Your task to perform on an android device: delete location history Image 0: 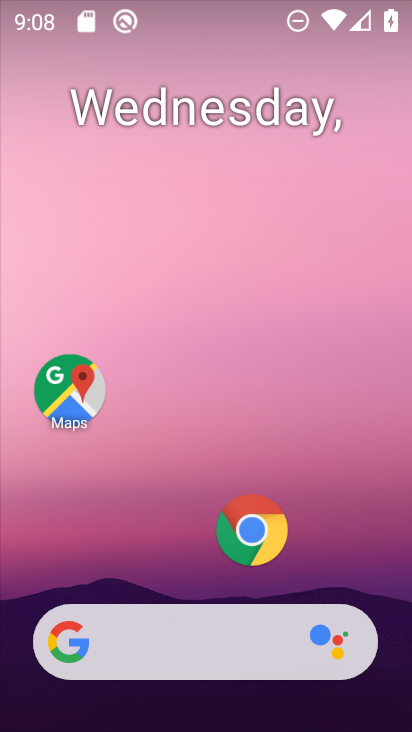
Step 0: click (65, 389)
Your task to perform on an android device: delete location history Image 1: 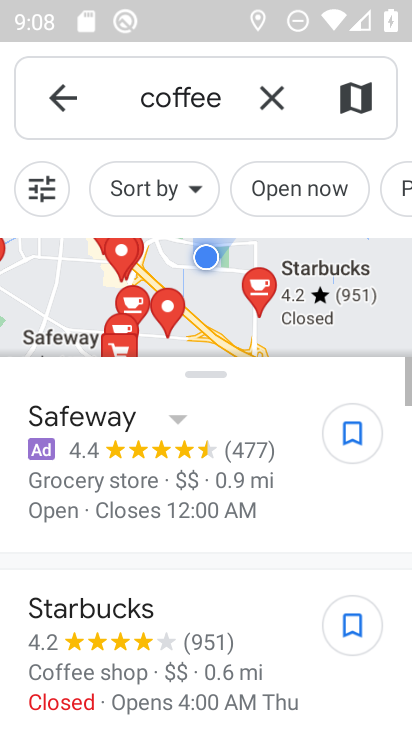
Step 1: click (61, 95)
Your task to perform on an android device: delete location history Image 2: 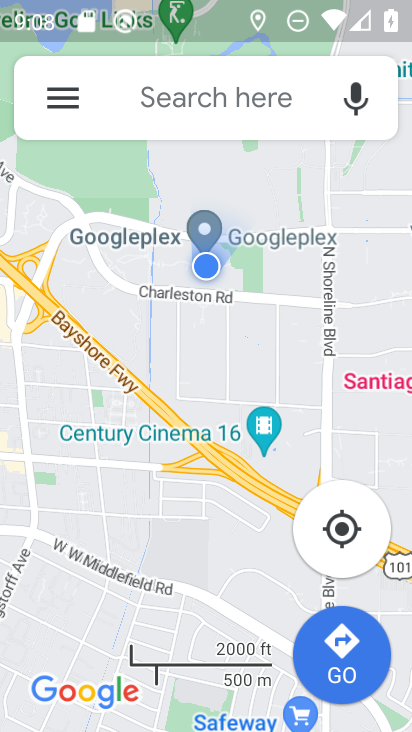
Step 2: click (61, 95)
Your task to perform on an android device: delete location history Image 3: 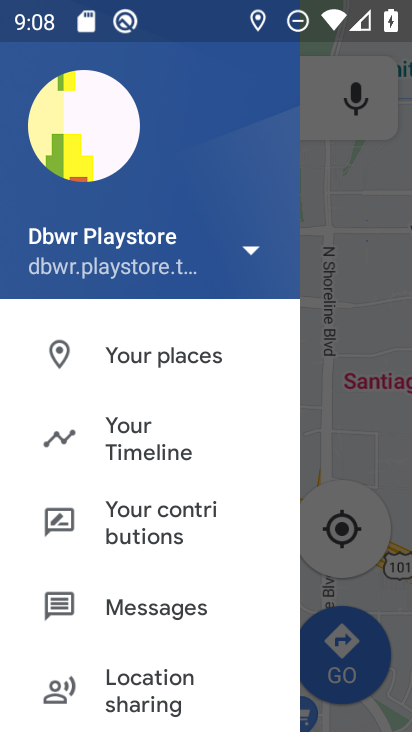
Step 3: click (153, 456)
Your task to perform on an android device: delete location history Image 4: 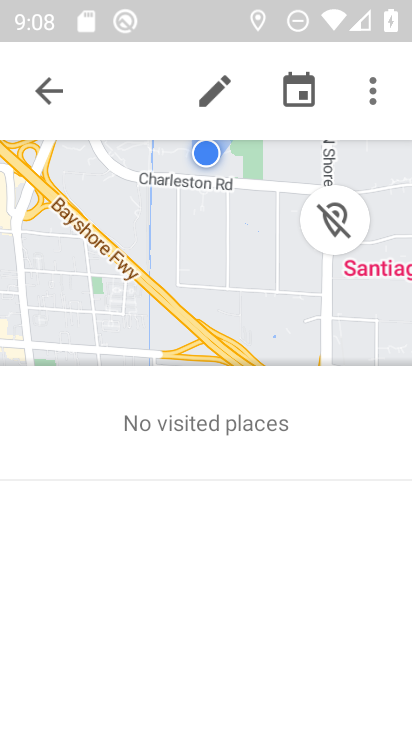
Step 4: click (367, 83)
Your task to perform on an android device: delete location history Image 5: 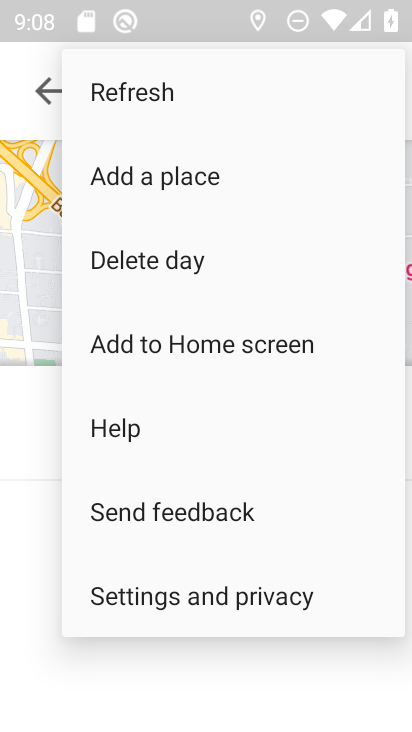
Step 5: click (189, 610)
Your task to perform on an android device: delete location history Image 6: 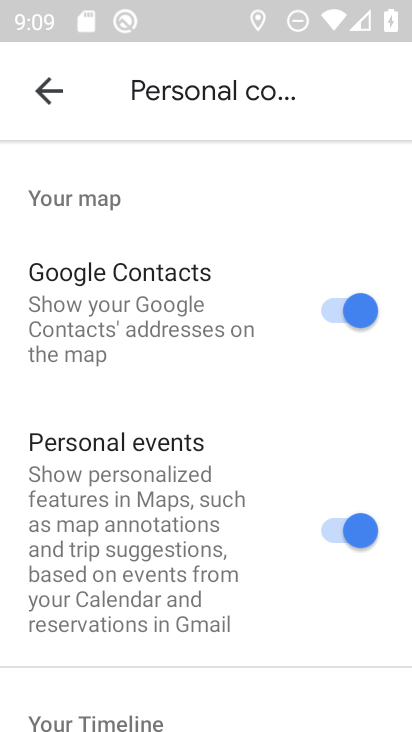
Step 6: drag from (202, 609) to (245, 111)
Your task to perform on an android device: delete location history Image 7: 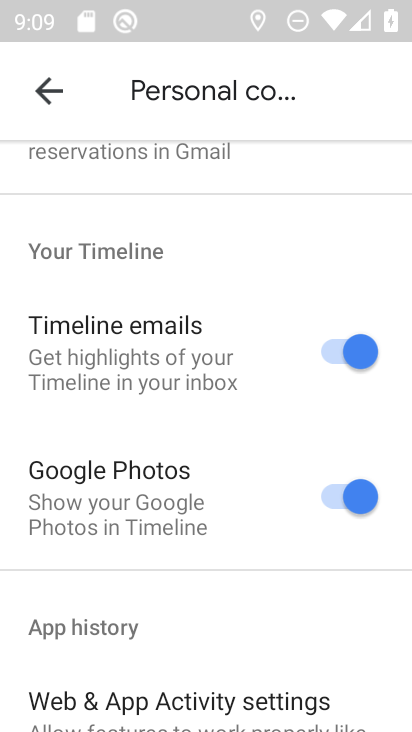
Step 7: drag from (173, 572) to (262, 48)
Your task to perform on an android device: delete location history Image 8: 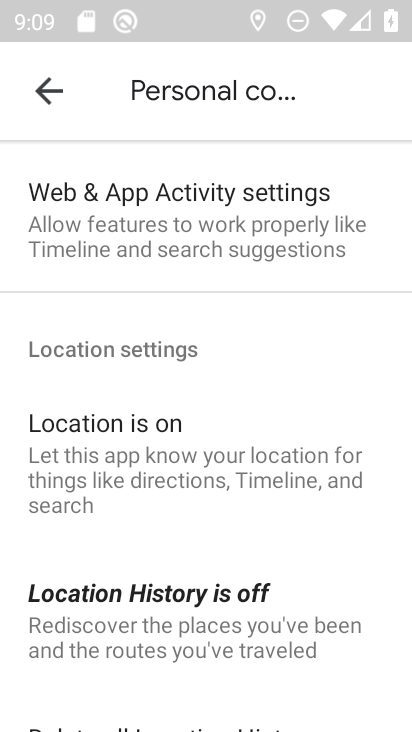
Step 8: drag from (145, 623) to (221, 130)
Your task to perform on an android device: delete location history Image 9: 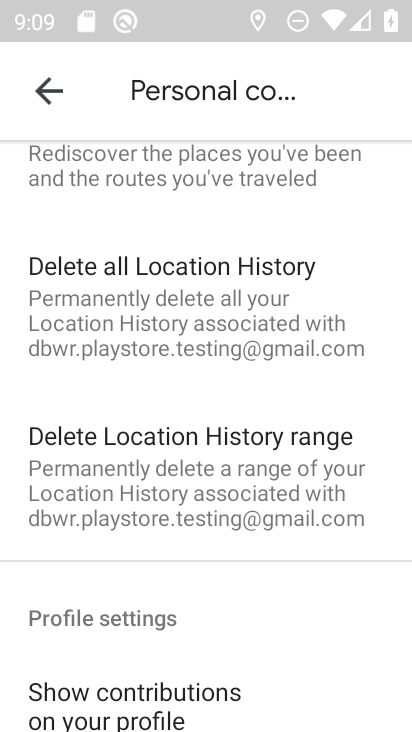
Step 9: click (156, 292)
Your task to perform on an android device: delete location history Image 10: 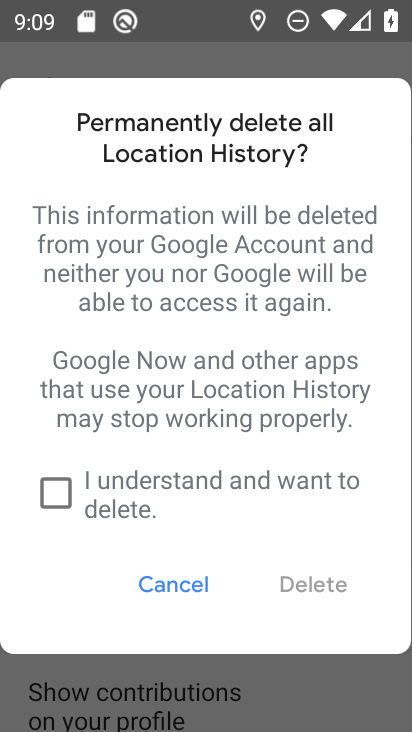
Step 10: click (56, 499)
Your task to perform on an android device: delete location history Image 11: 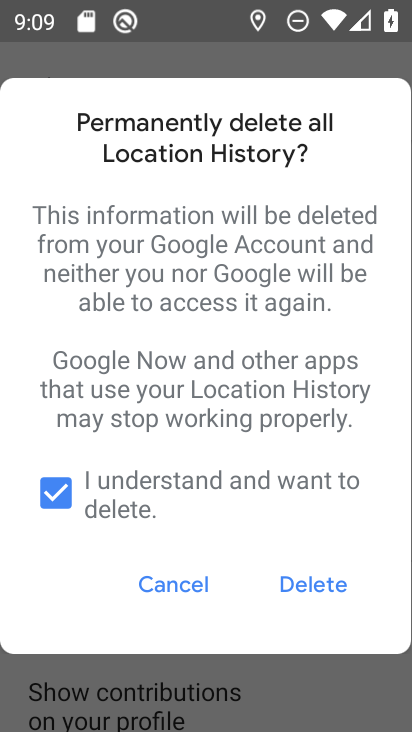
Step 11: click (325, 585)
Your task to perform on an android device: delete location history Image 12: 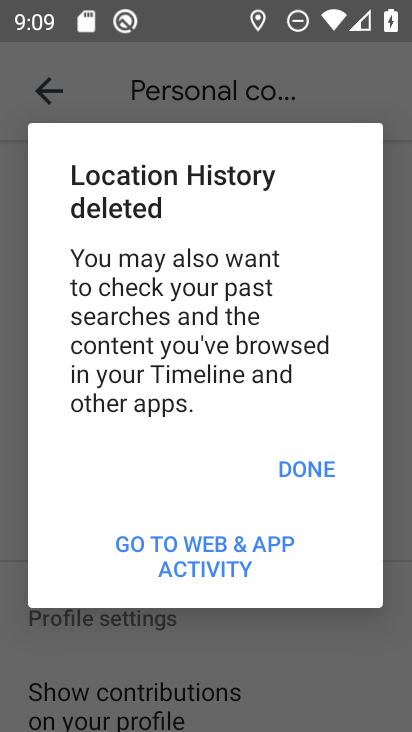
Step 12: click (314, 461)
Your task to perform on an android device: delete location history Image 13: 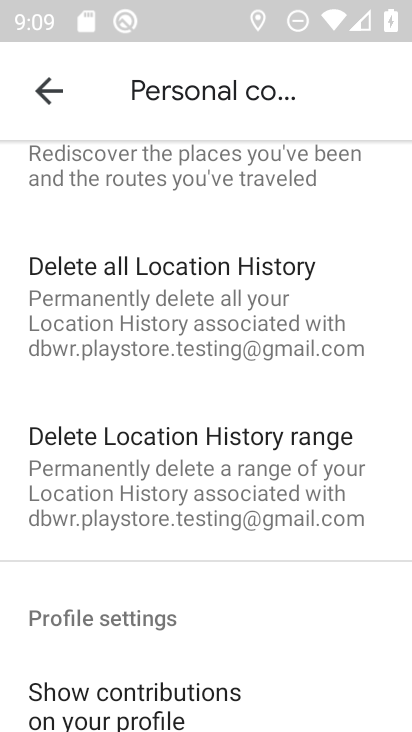
Step 13: task complete